Your task to perform on an android device: Open Yahoo.com Image 0: 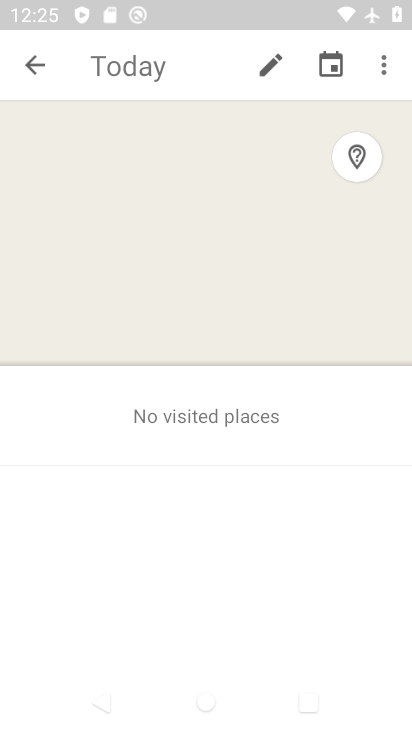
Step 0: press home button
Your task to perform on an android device: Open Yahoo.com Image 1: 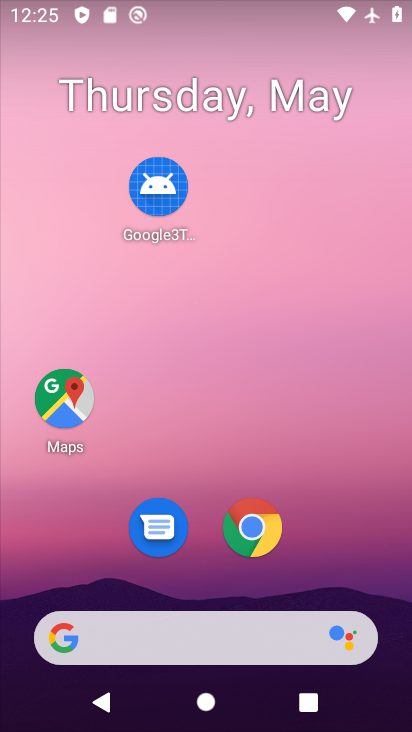
Step 1: click (246, 519)
Your task to perform on an android device: Open Yahoo.com Image 2: 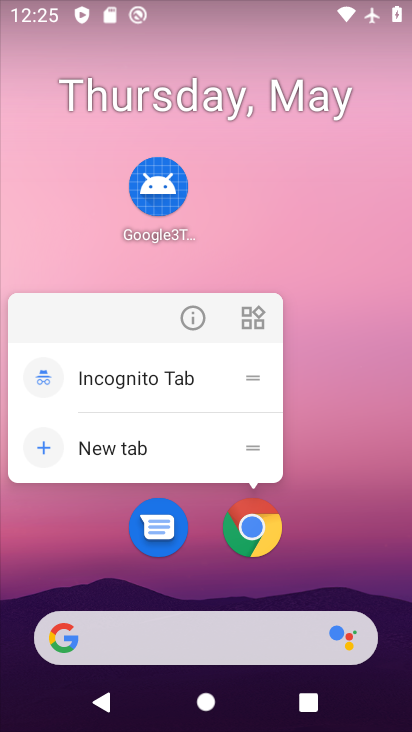
Step 2: click (246, 520)
Your task to perform on an android device: Open Yahoo.com Image 3: 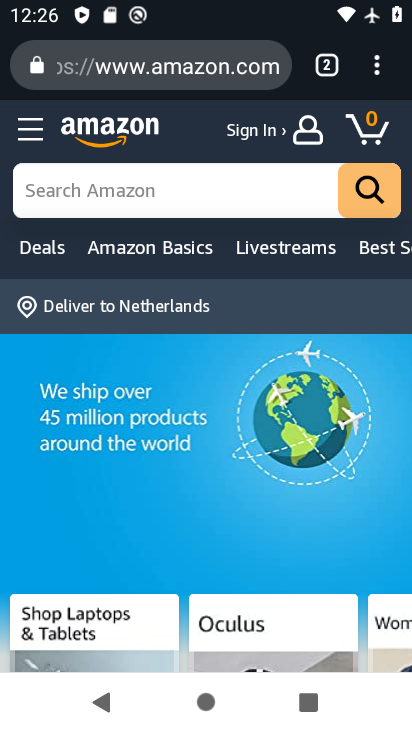
Step 3: click (321, 61)
Your task to perform on an android device: Open Yahoo.com Image 4: 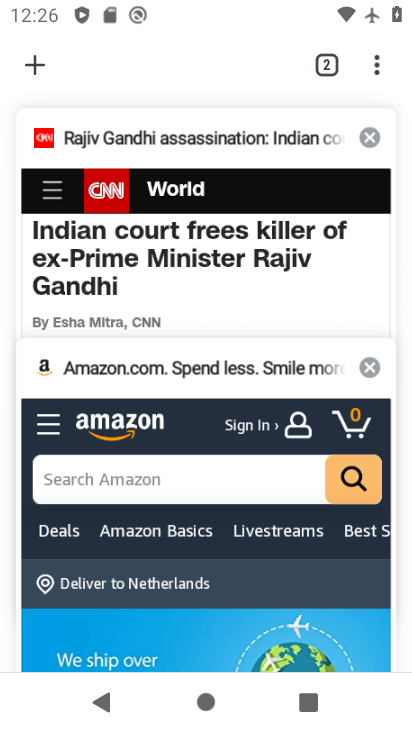
Step 4: click (366, 129)
Your task to perform on an android device: Open Yahoo.com Image 5: 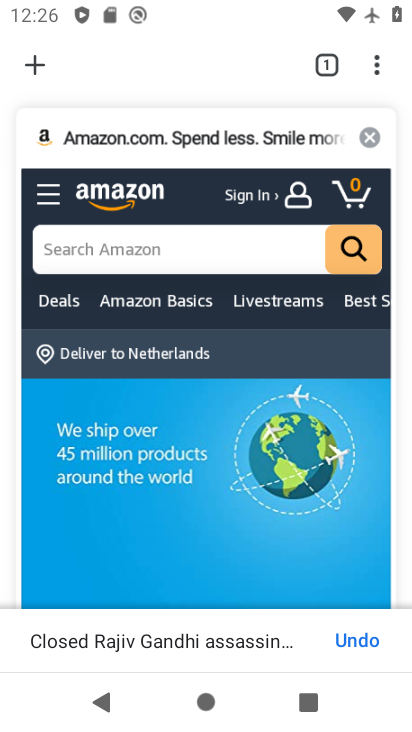
Step 5: click (369, 134)
Your task to perform on an android device: Open Yahoo.com Image 6: 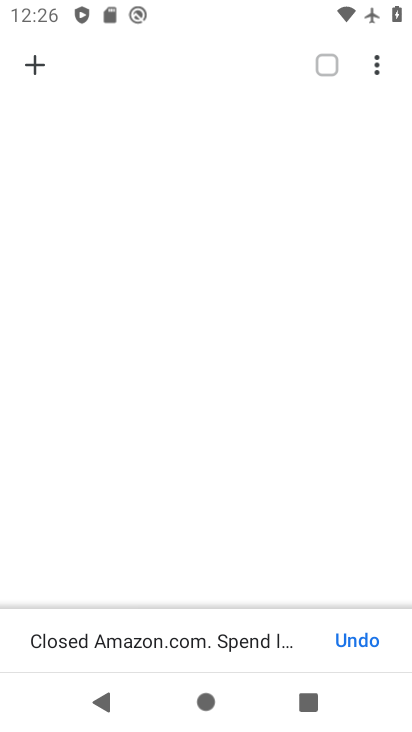
Step 6: click (40, 64)
Your task to perform on an android device: Open Yahoo.com Image 7: 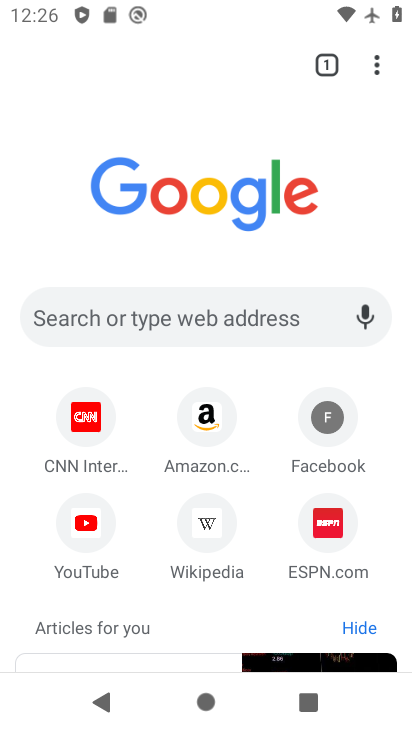
Step 7: click (140, 304)
Your task to perform on an android device: Open Yahoo.com Image 8: 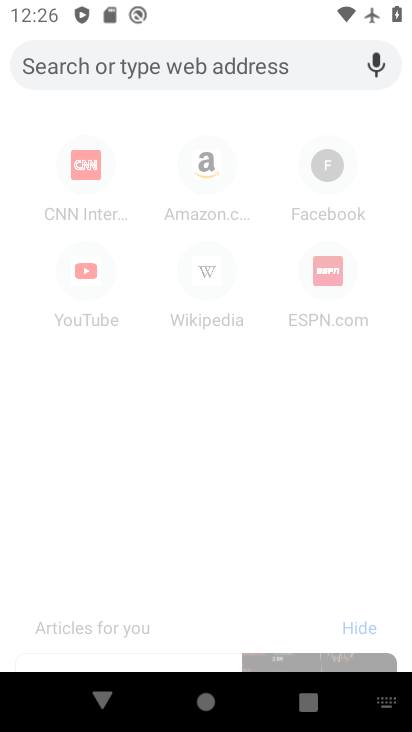
Step 8: type "yahoo"
Your task to perform on an android device: Open Yahoo.com Image 9: 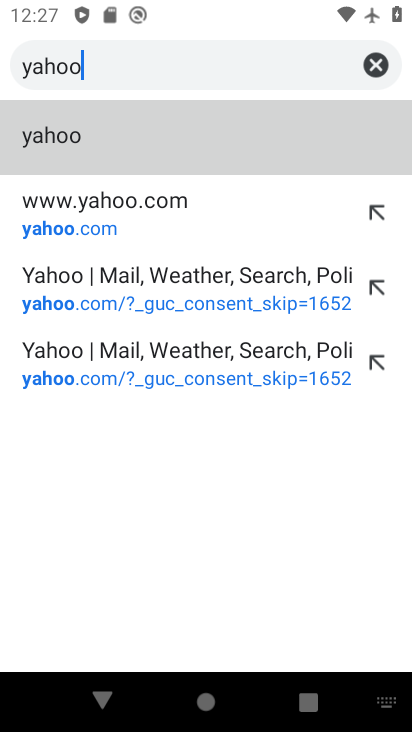
Step 9: click (126, 207)
Your task to perform on an android device: Open Yahoo.com Image 10: 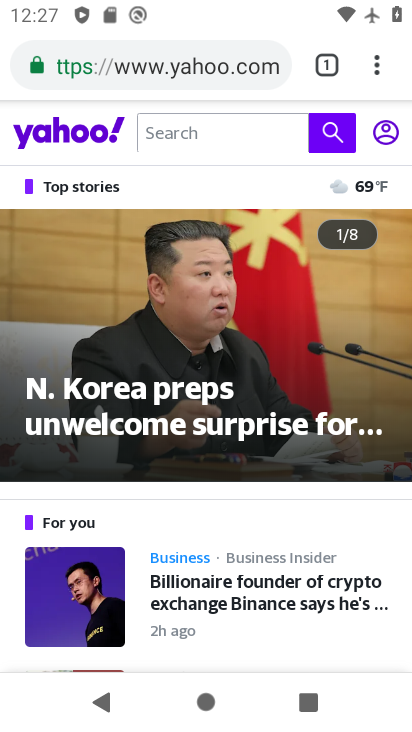
Step 10: task complete